Your task to perform on an android device: Search for sushi restaurants on Maps Image 0: 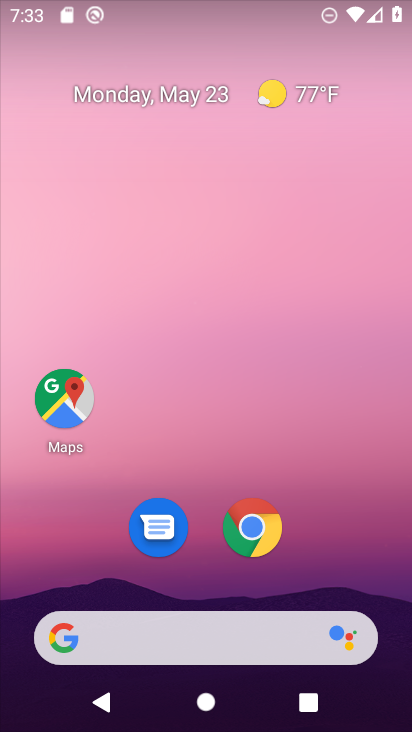
Step 0: press home button
Your task to perform on an android device: Search for sushi restaurants on Maps Image 1: 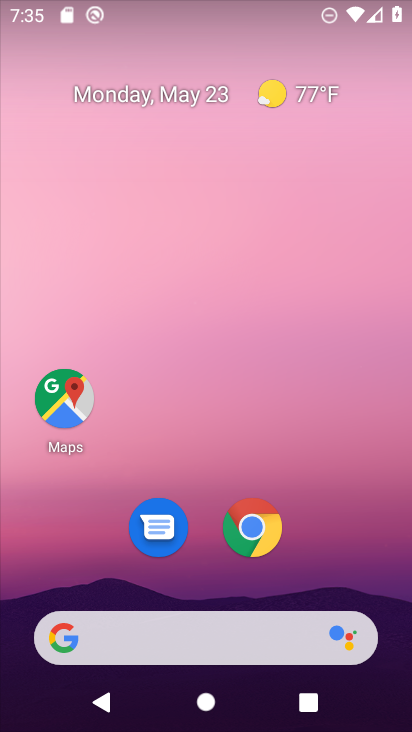
Step 1: drag from (275, 656) to (219, 43)
Your task to perform on an android device: Search for sushi restaurants on Maps Image 2: 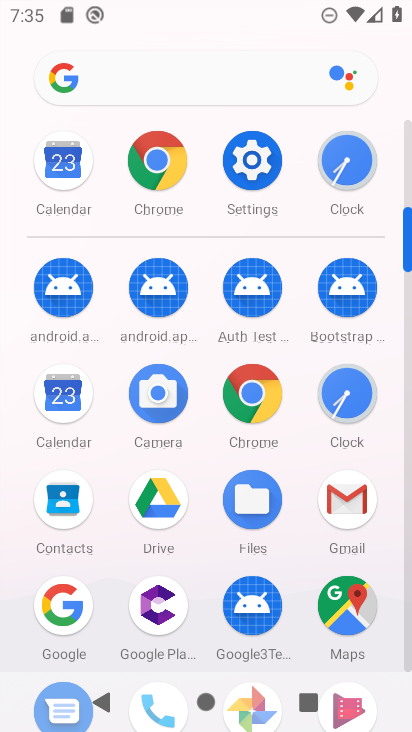
Step 2: click (345, 605)
Your task to perform on an android device: Search for sushi restaurants on Maps Image 3: 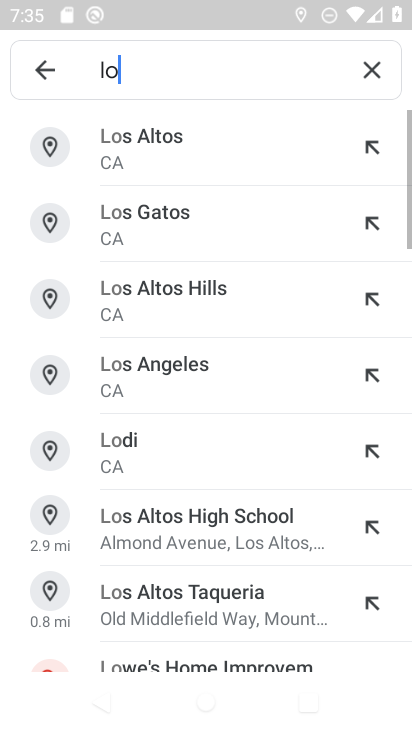
Step 3: click (385, 68)
Your task to perform on an android device: Search for sushi restaurants on Maps Image 4: 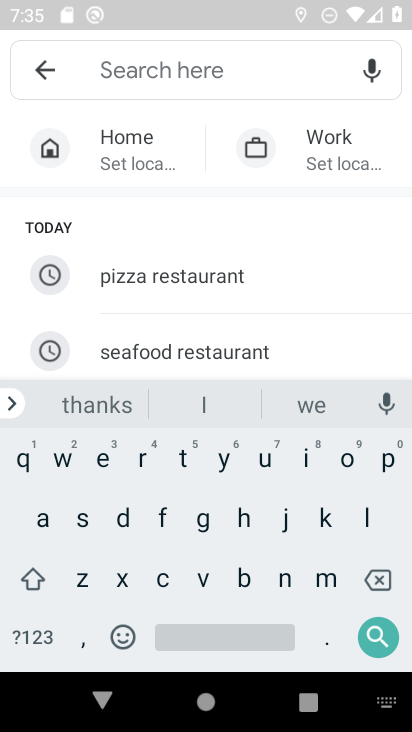
Step 4: click (90, 513)
Your task to perform on an android device: Search for sushi restaurants on Maps Image 5: 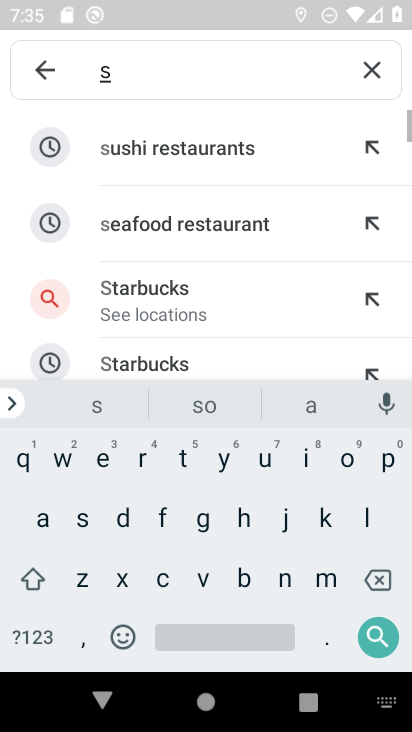
Step 5: click (204, 157)
Your task to perform on an android device: Search for sushi restaurants on Maps Image 6: 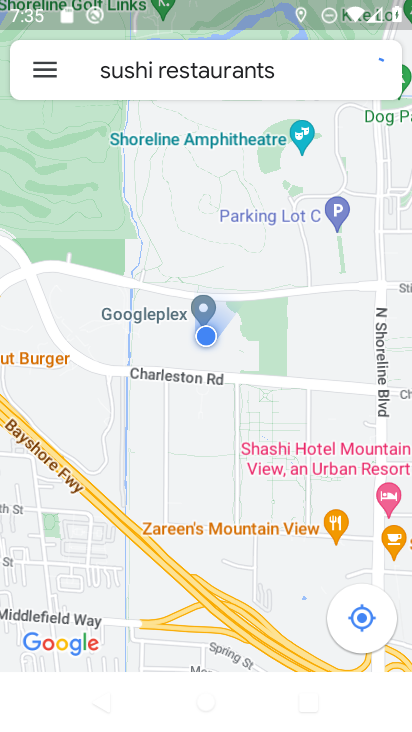
Step 6: task complete